Your task to perform on an android device: Open the phone app and click the voicemail tab. Image 0: 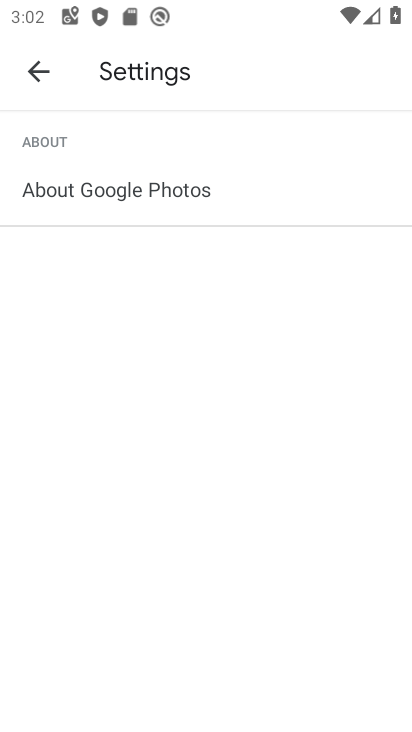
Step 0: press home button
Your task to perform on an android device: Open the phone app and click the voicemail tab. Image 1: 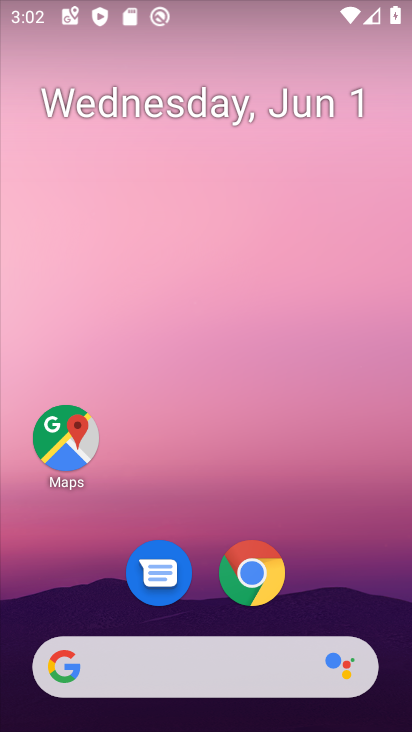
Step 1: drag from (134, 725) to (127, 37)
Your task to perform on an android device: Open the phone app and click the voicemail tab. Image 2: 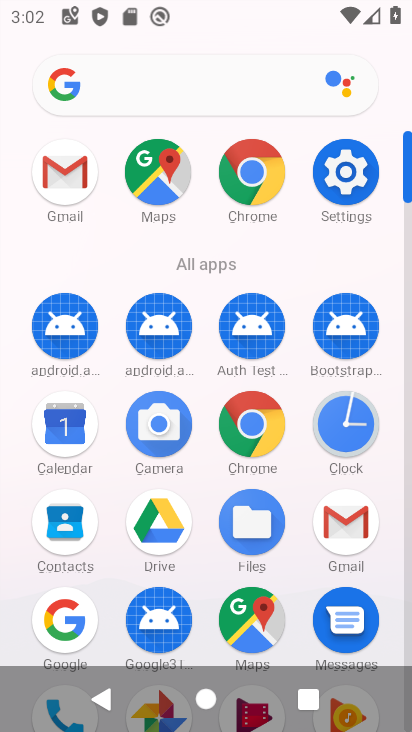
Step 2: drag from (112, 632) to (115, 272)
Your task to perform on an android device: Open the phone app and click the voicemail tab. Image 3: 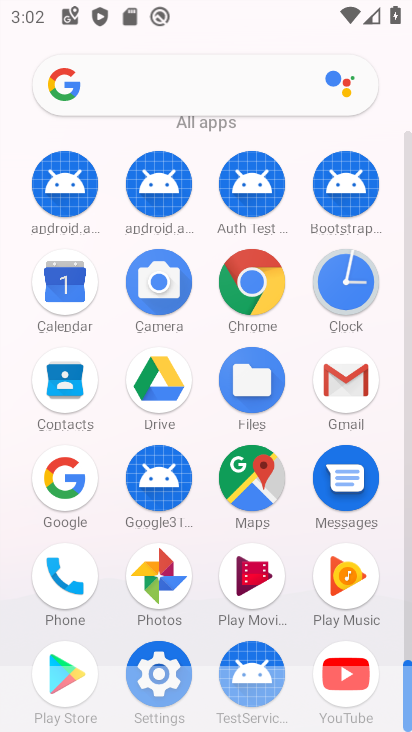
Step 3: click (67, 588)
Your task to perform on an android device: Open the phone app and click the voicemail tab. Image 4: 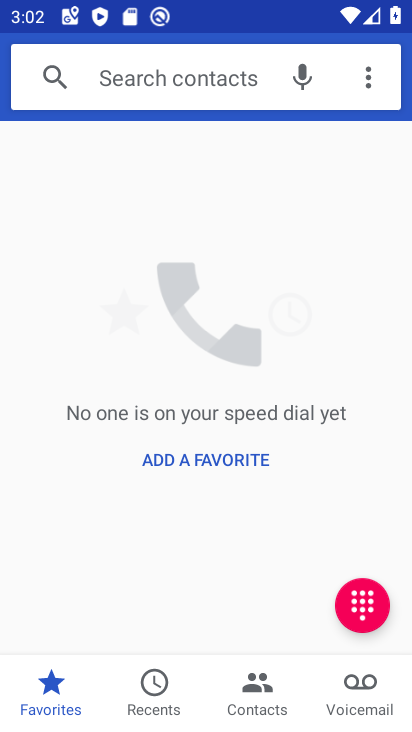
Step 4: click (377, 708)
Your task to perform on an android device: Open the phone app and click the voicemail tab. Image 5: 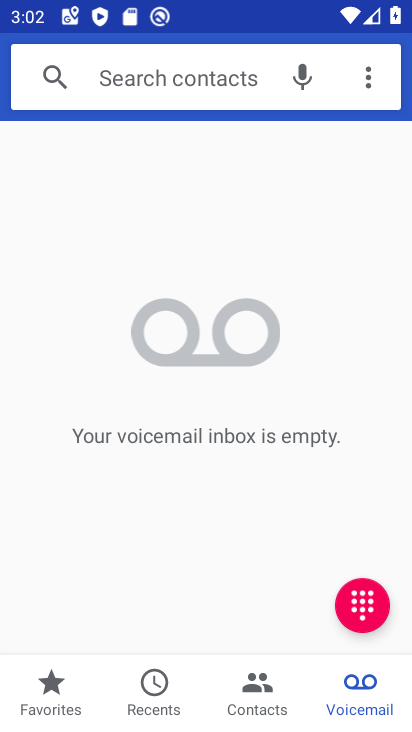
Step 5: task complete